Your task to perform on an android device: Search for Mexican restaurants on Maps Image 0: 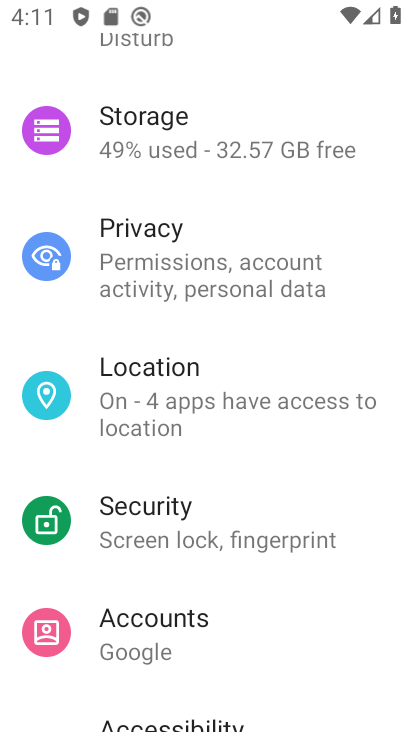
Step 0: press home button
Your task to perform on an android device: Search for Mexican restaurants on Maps Image 1: 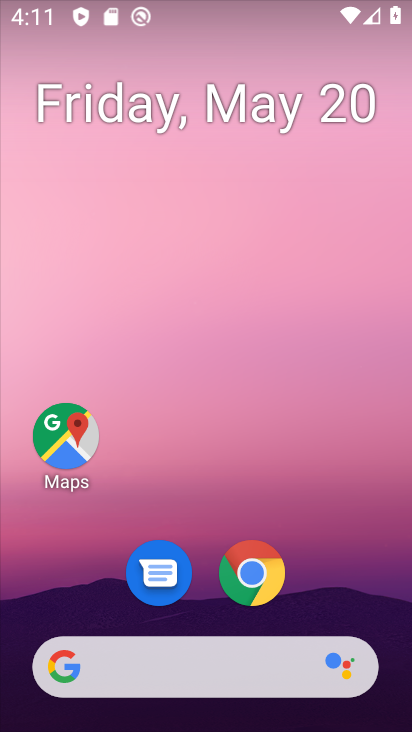
Step 1: click (72, 446)
Your task to perform on an android device: Search for Mexican restaurants on Maps Image 2: 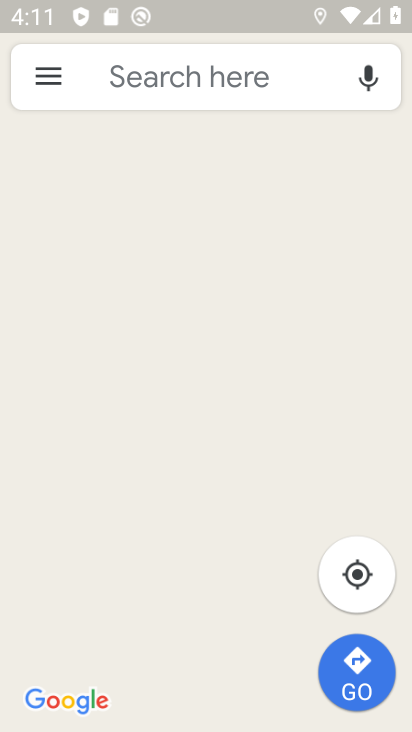
Step 2: click (184, 77)
Your task to perform on an android device: Search for Mexican restaurants on Maps Image 3: 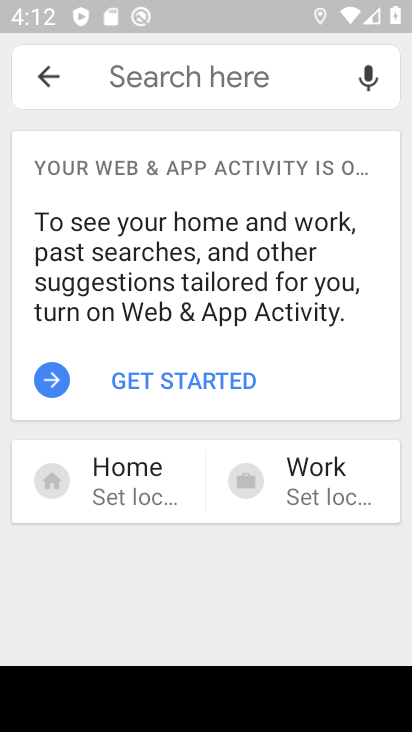
Step 3: type "Mexican restaurants"
Your task to perform on an android device: Search for Mexican restaurants on Maps Image 4: 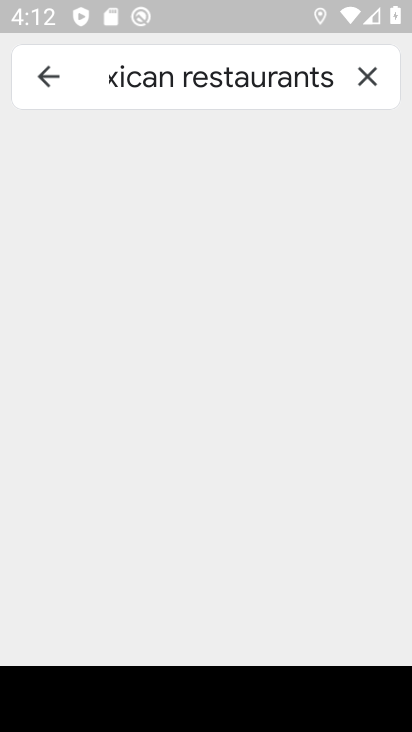
Step 4: task complete